Your task to perform on an android device: set the timer Image 0: 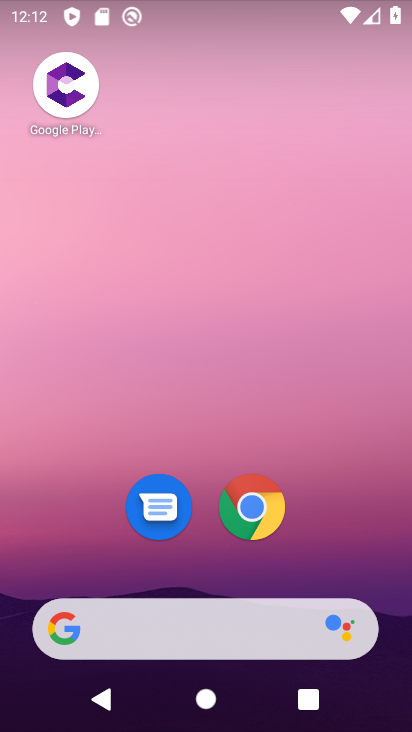
Step 0: drag from (228, 576) to (394, 465)
Your task to perform on an android device: set the timer Image 1: 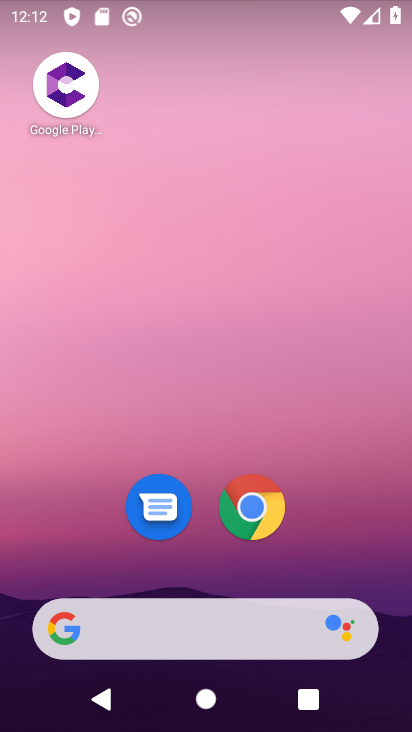
Step 1: drag from (228, 561) to (198, 6)
Your task to perform on an android device: set the timer Image 2: 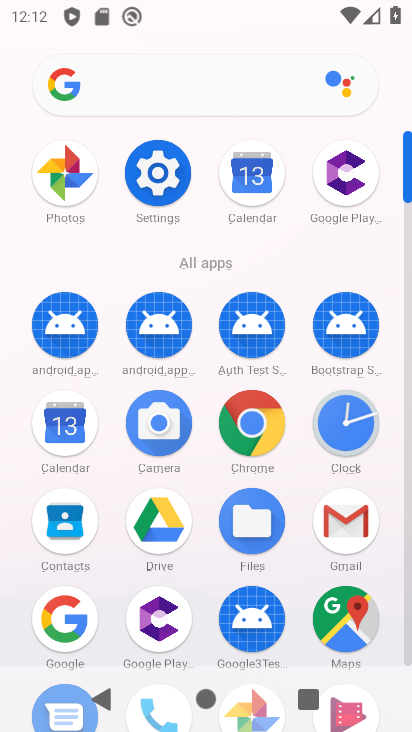
Step 2: click (365, 430)
Your task to perform on an android device: set the timer Image 3: 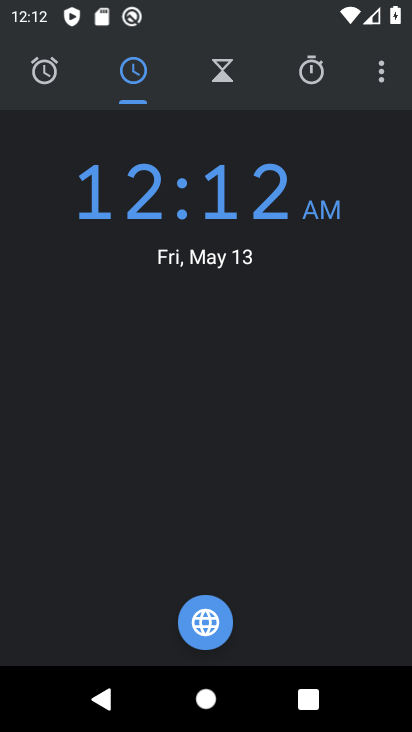
Step 3: click (305, 80)
Your task to perform on an android device: set the timer Image 4: 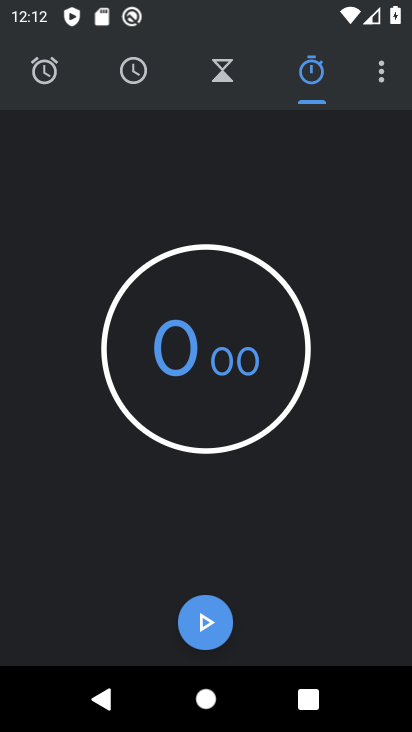
Step 4: click (203, 52)
Your task to perform on an android device: set the timer Image 5: 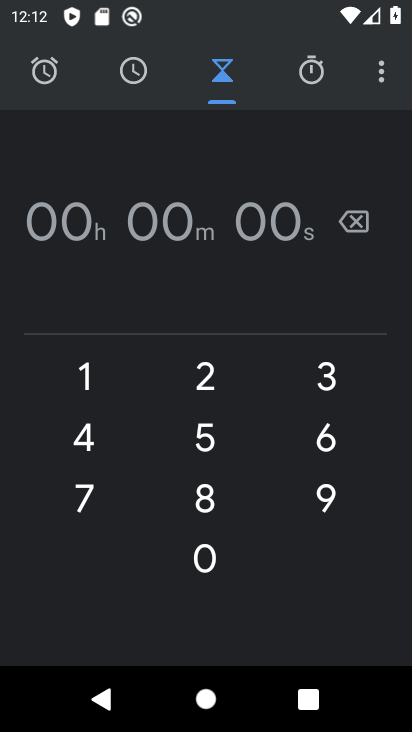
Step 5: click (180, 380)
Your task to perform on an android device: set the timer Image 6: 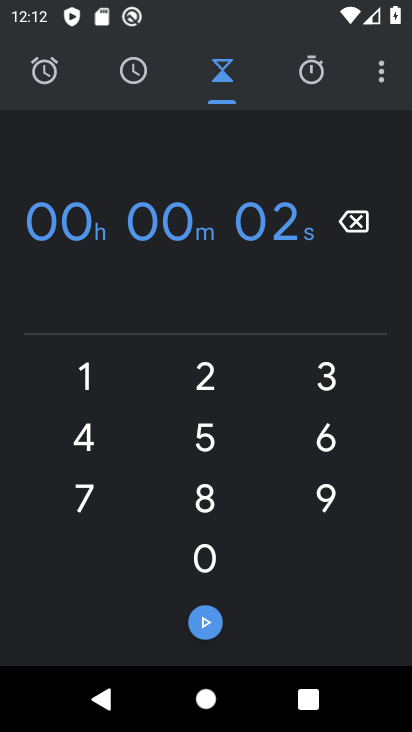
Step 6: click (207, 449)
Your task to perform on an android device: set the timer Image 7: 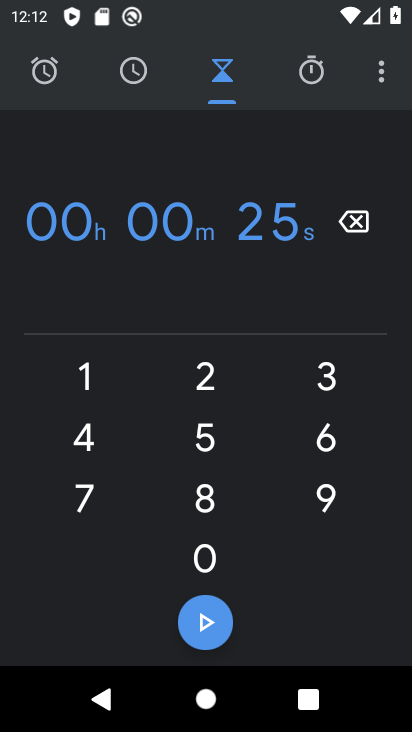
Step 7: task complete